Your task to perform on an android device: check data usage Image 0: 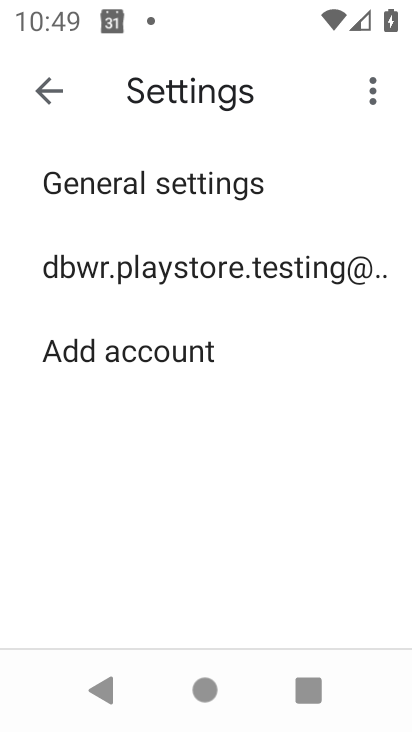
Step 0: press home button
Your task to perform on an android device: check data usage Image 1: 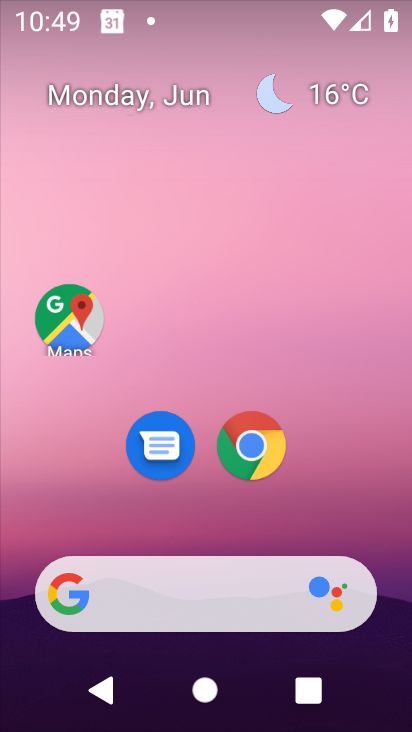
Step 1: drag from (264, 525) to (263, 198)
Your task to perform on an android device: check data usage Image 2: 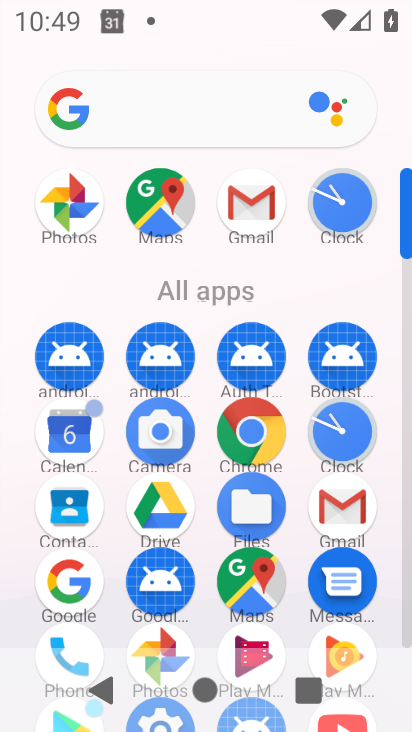
Step 2: drag from (391, 566) to (309, 150)
Your task to perform on an android device: check data usage Image 3: 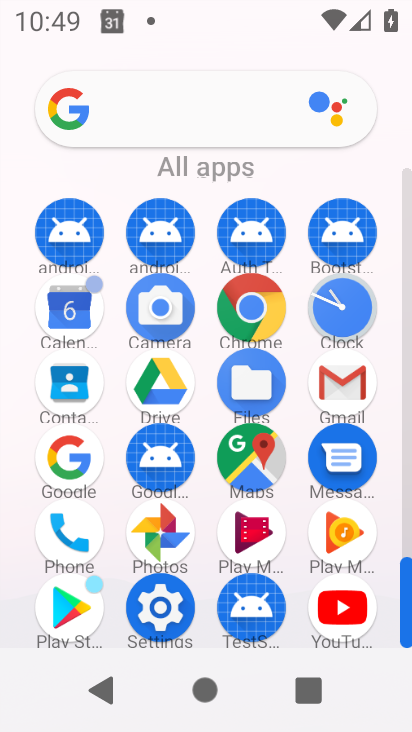
Step 3: click (173, 593)
Your task to perform on an android device: check data usage Image 4: 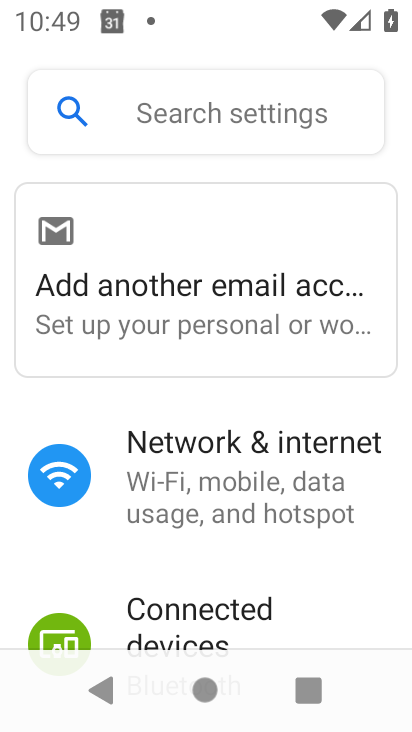
Step 4: click (259, 478)
Your task to perform on an android device: check data usage Image 5: 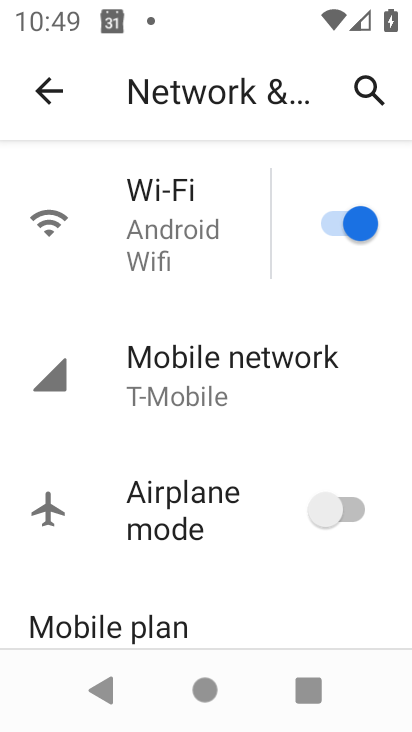
Step 5: click (224, 362)
Your task to perform on an android device: check data usage Image 6: 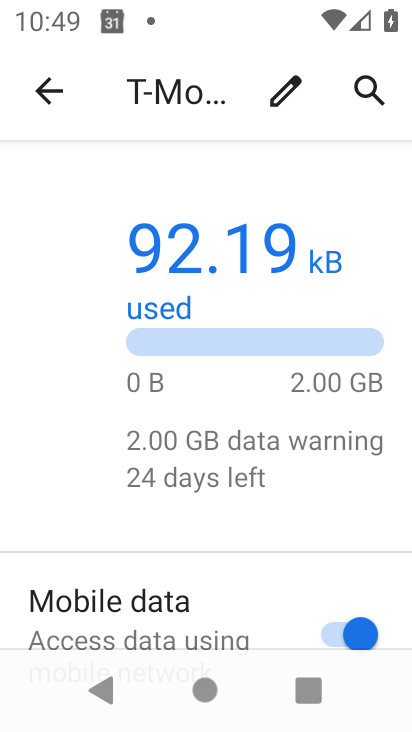
Step 6: drag from (344, 575) to (321, 99)
Your task to perform on an android device: check data usage Image 7: 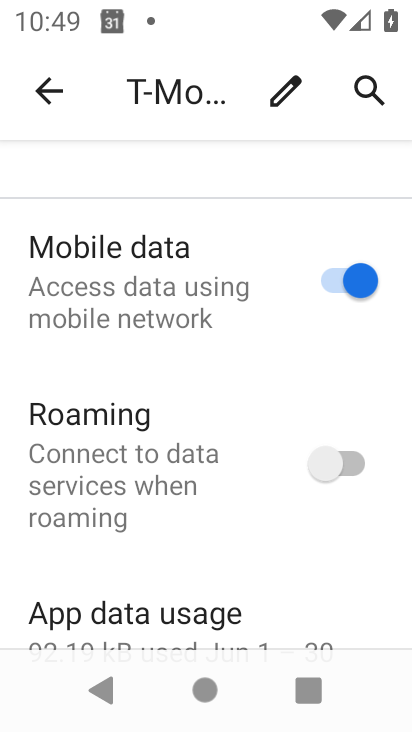
Step 7: click (125, 624)
Your task to perform on an android device: check data usage Image 8: 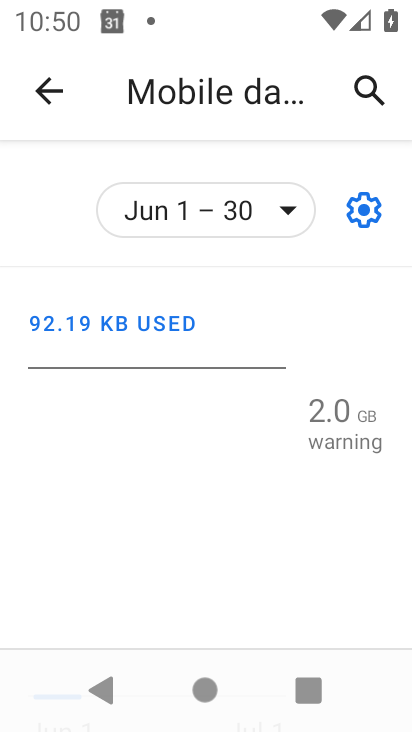
Step 8: task complete